Your task to perform on an android device: Go to Yahoo.com Image 0: 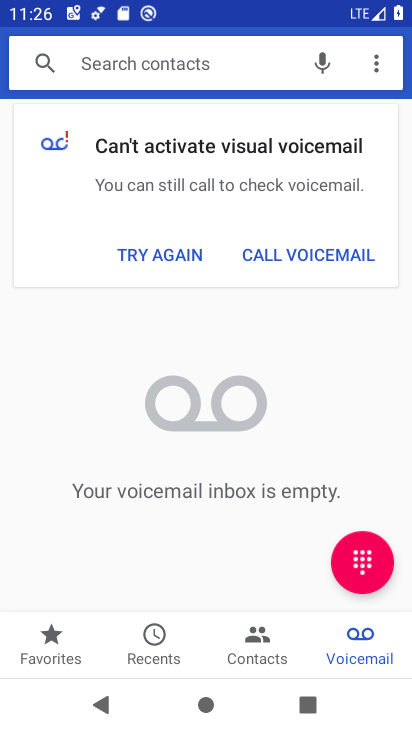
Step 0: press home button
Your task to perform on an android device: Go to Yahoo.com Image 1: 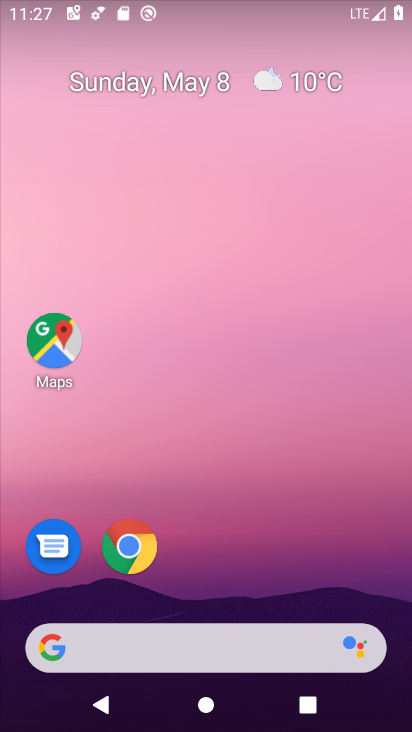
Step 1: click (129, 546)
Your task to perform on an android device: Go to Yahoo.com Image 2: 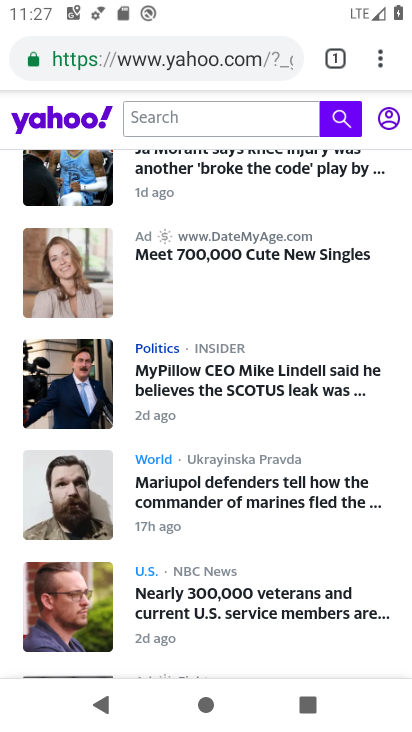
Step 2: task complete